Your task to perform on an android device: change the upload size in google photos Image 0: 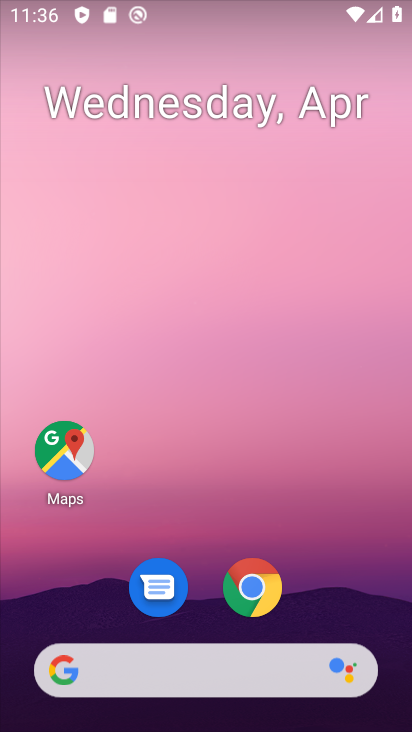
Step 0: drag from (213, 617) to (163, 112)
Your task to perform on an android device: change the upload size in google photos Image 1: 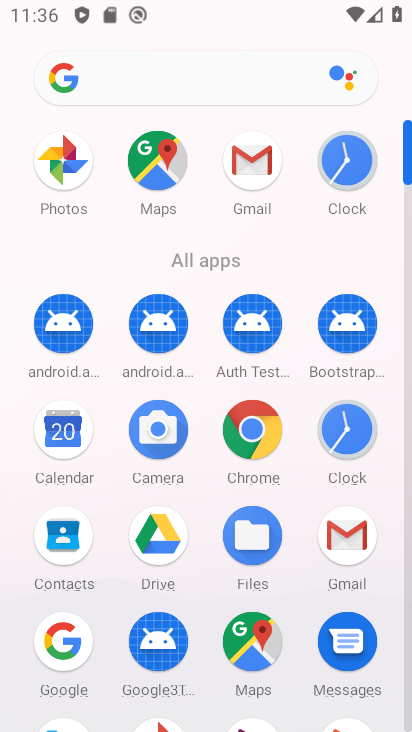
Step 1: click (62, 164)
Your task to perform on an android device: change the upload size in google photos Image 2: 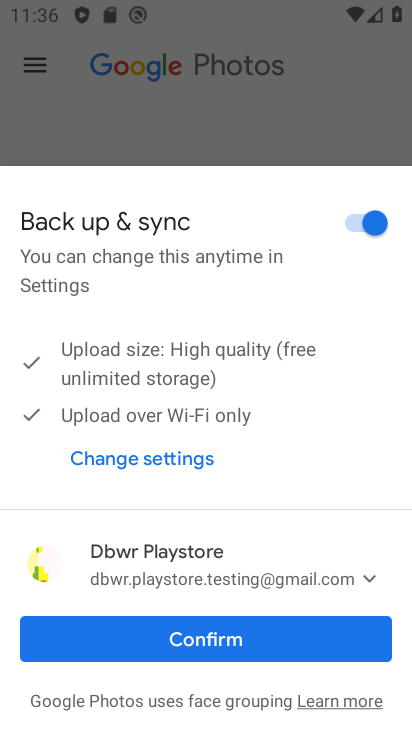
Step 2: click (257, 648)
Your task to perform on an android device: change the upload size in google photos Image 3: 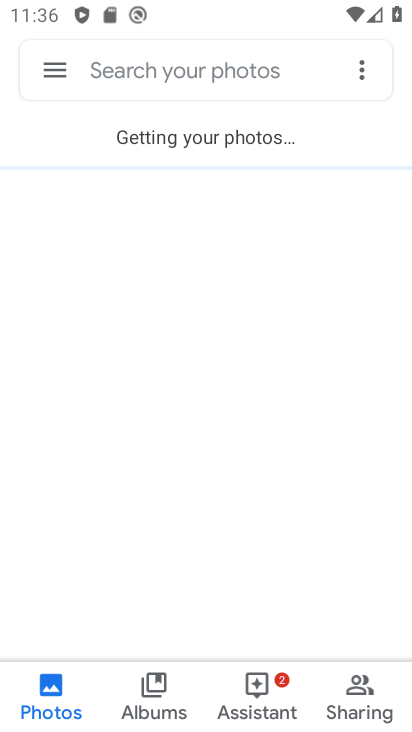
Step 3: click (51, 64)
Your task to perform on an android device: change the upload size in google photos Image 4: 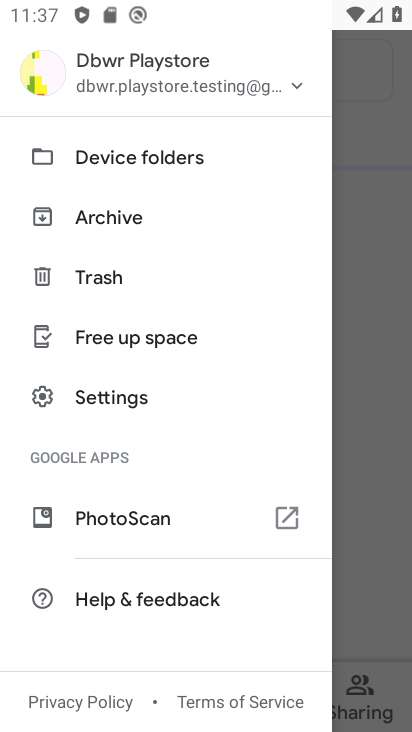
Step 4: click (95, 404)
Your task to perform on an android device: change the upload size in google photos Image 5: 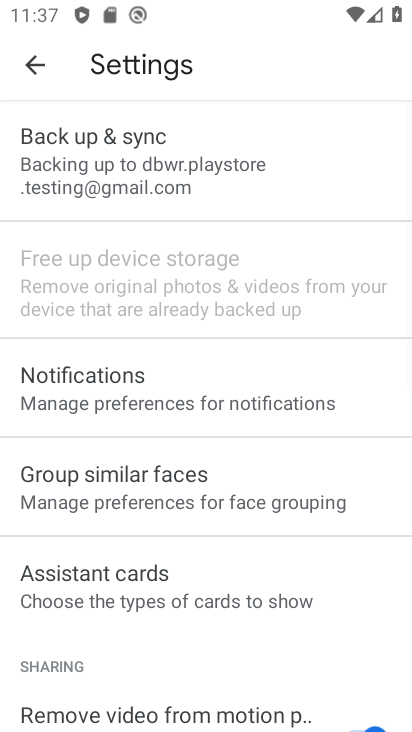
Step 5: click (163, 133)
Your task to perform on an android device: change the upload size in google photos Image 6: 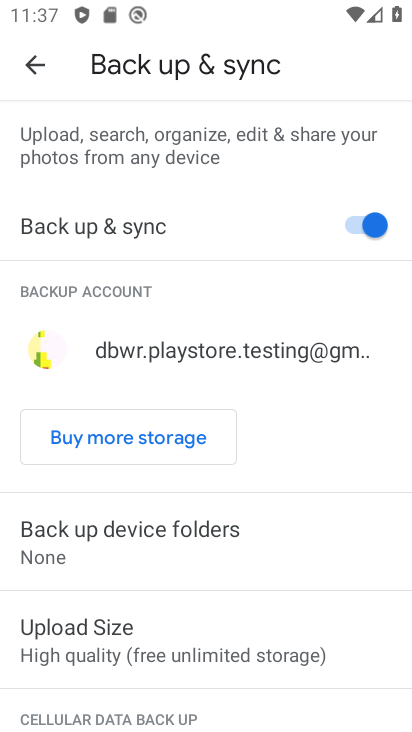
Step 6: click (121, 650)
Your task to perform on an android device: change the upload size in google photos Image 7: 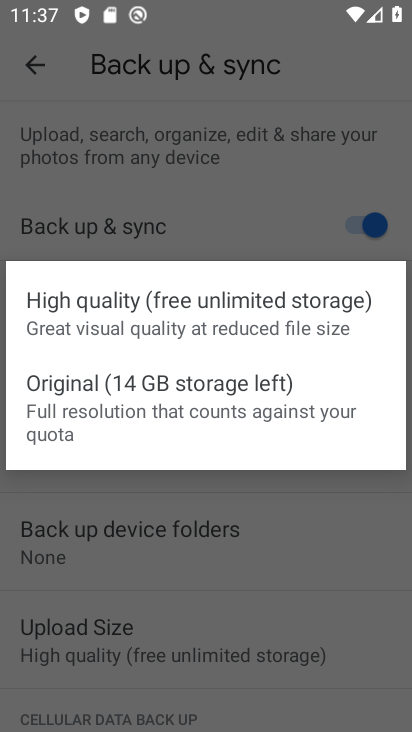
Step 7: click (181, 438)
Your task to perform on an android device: change the upload size in google photos Image 8: 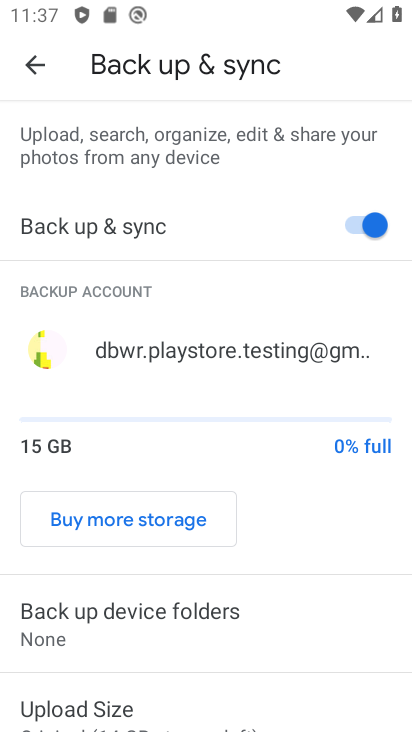
Step 8: task complete